Your task to perform on an android device: Toggle the flashlight Image 0: 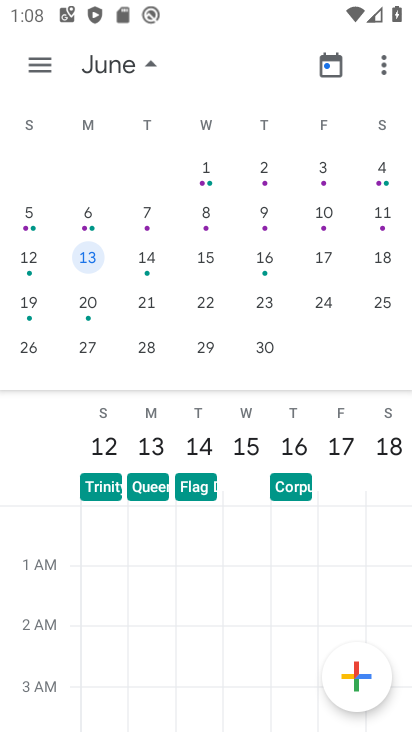
Step 0: press home button
Your task to perform on an android device: Toggle the flashlight Image 1: 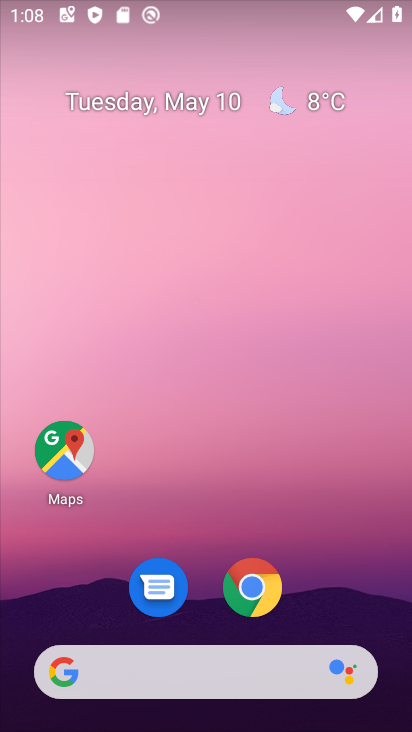
Step 1: drag from (344, 11) to (319, 374)
Your task to perform on an android device: Toggle the flashlight Image 2: 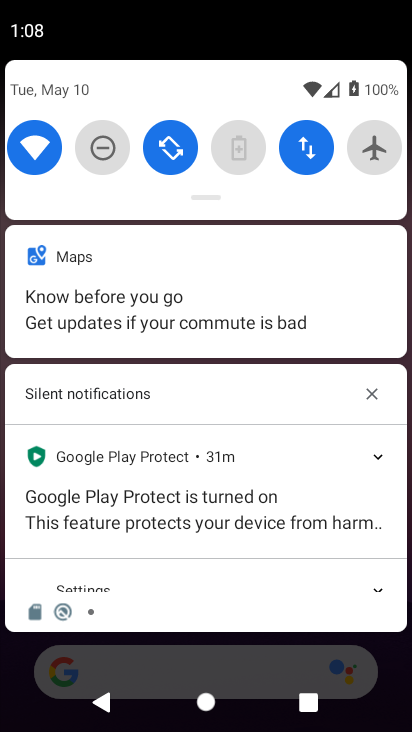
Step 2: drag from (205, 196) to (199, 406)
Your task to perform on an android device: Toggle the flashlight Image 3: 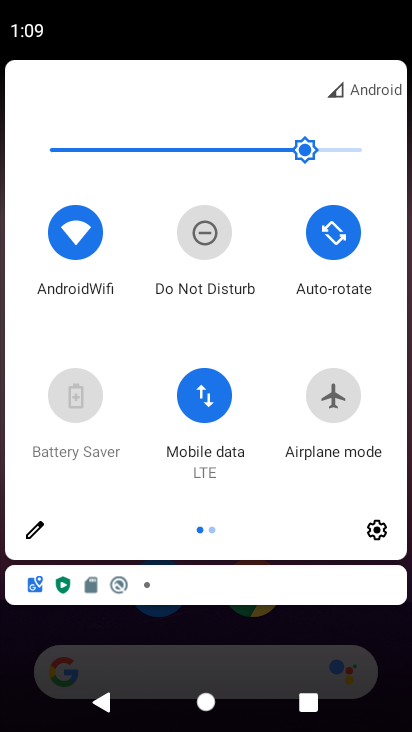
Step 3: click (39, 526)
Your task to perform on an android device: Toggle the flashlight Image 4: 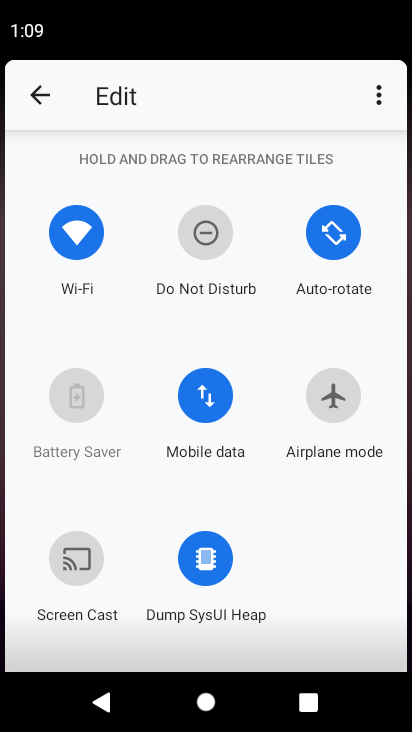
Step 4: task complete